Your task to perform on an android device: find photos in the google photos app Image 0: 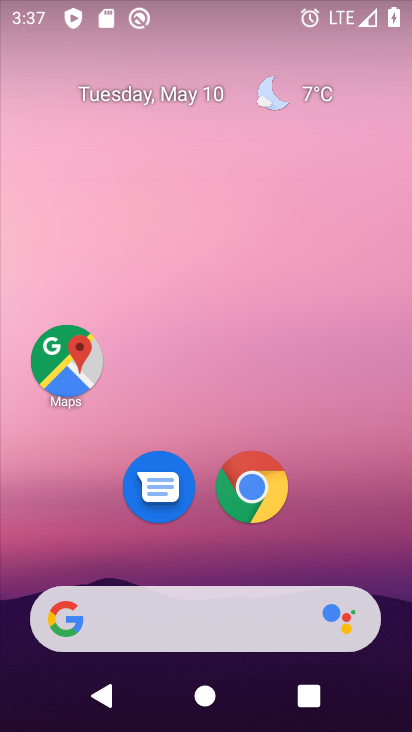
Step 0: drag from (342, 576) to (291, 113)
Your task to perform on an android device: find photos in the google photos app Image 1: 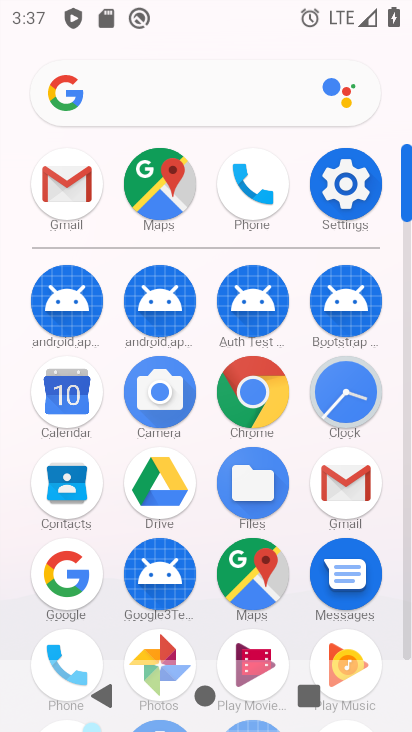
Step 1: click (160, 652)
Your task to perform on an android device: find photos in the google photos app Image 2: 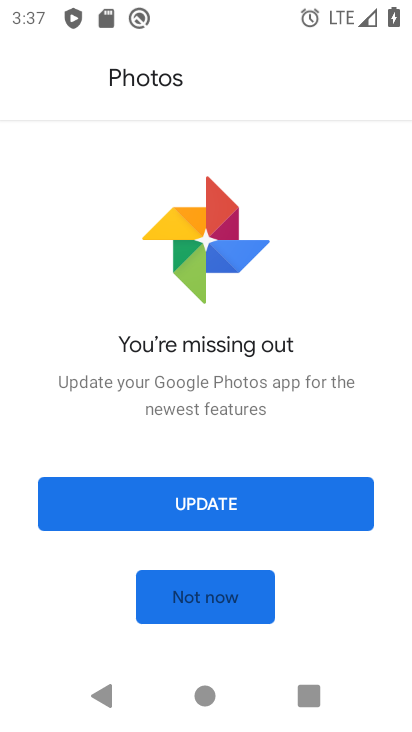
Step 2: click (231, 496)
Your task to perform on an android device: find photos in the google photos app Image 3: 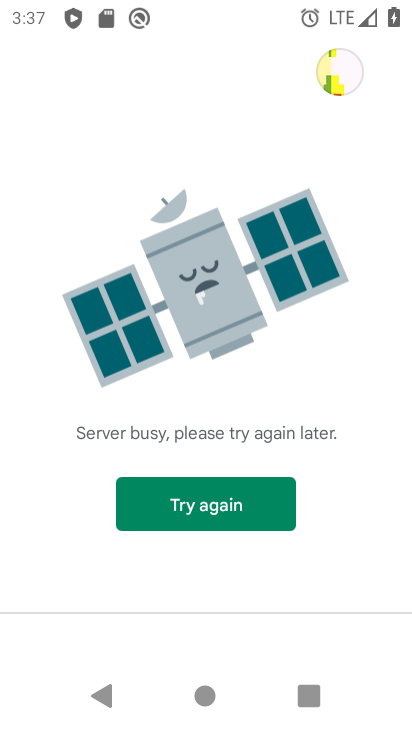
Step 3: task complete